Your task to perform on an android device: check google app version Image 0: 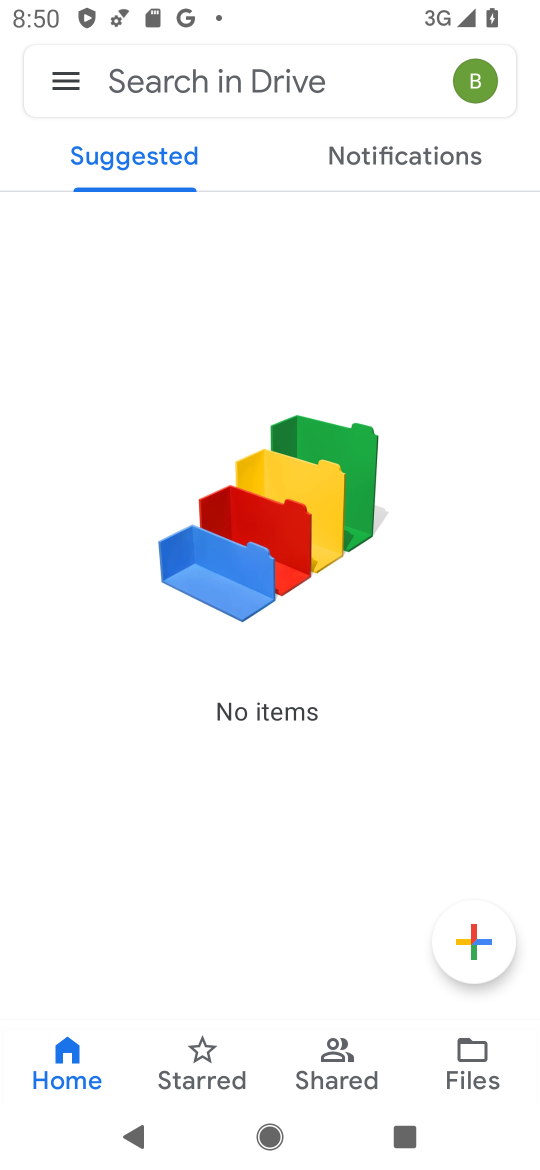
Step 0: press back button
Your task to perform on an android device: check google app version Image 1: 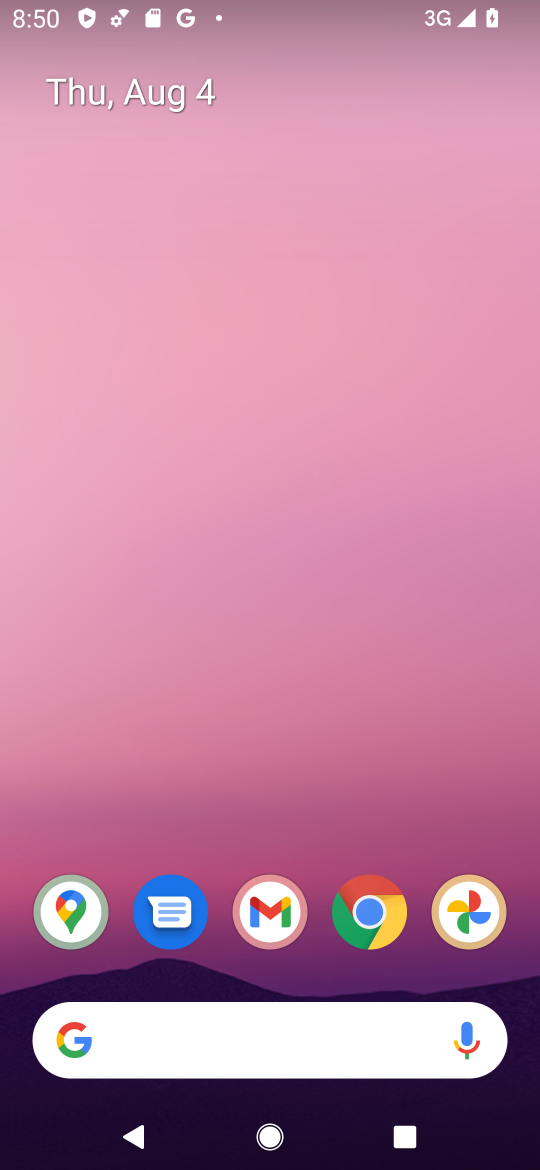
Step 1: click (368, 908)
Your task to perform on an android device: check google app version Image 2: 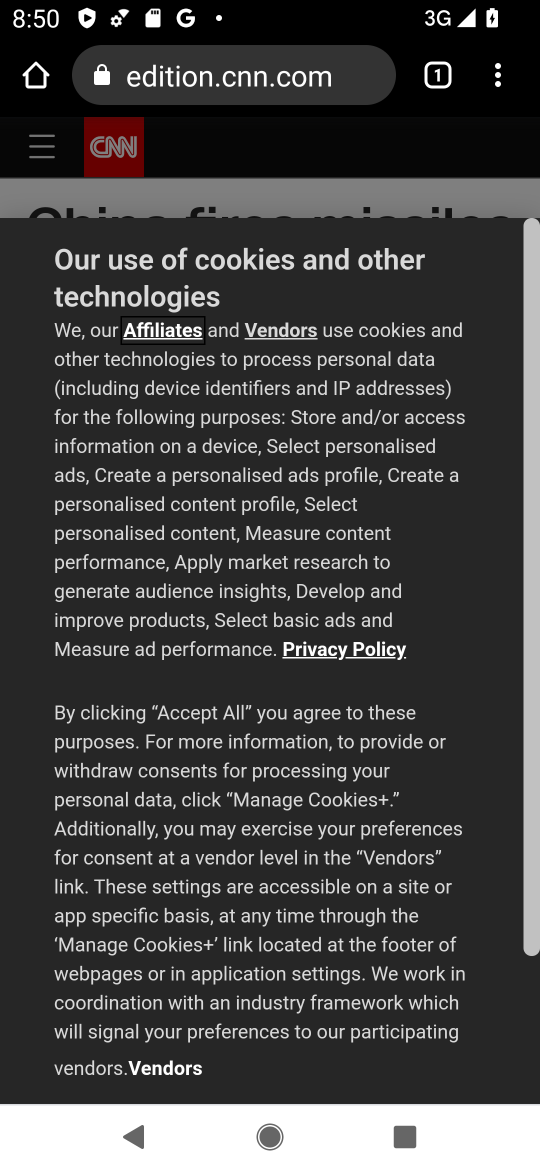
Step 2: click (496, 81)
Your task to perform on an android device: check google app version Image 3: 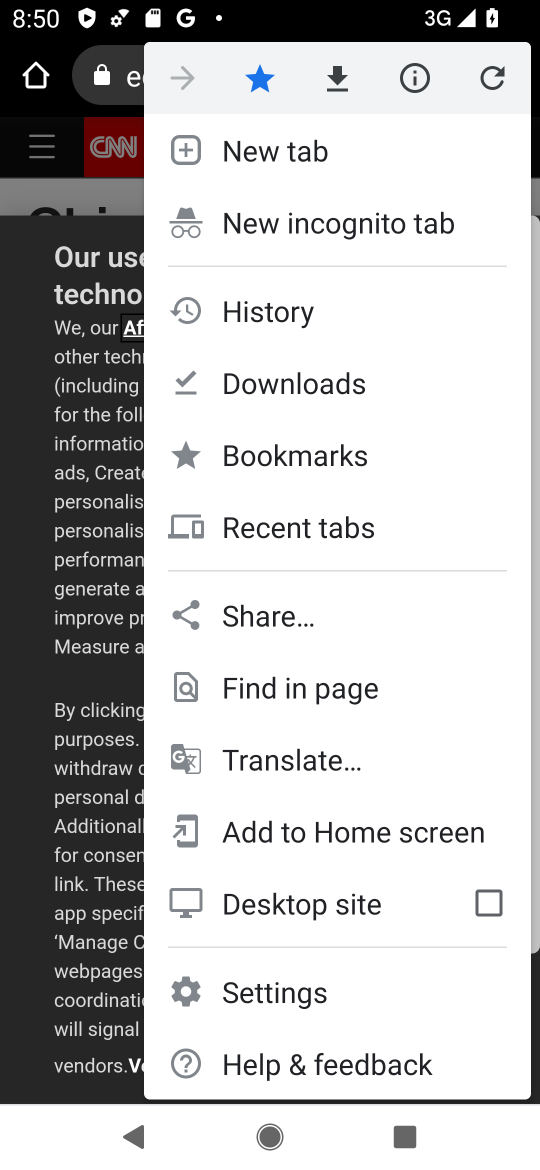
Step 3: click (361, 1066)
Your task to perform on an android device: check google app version Image 4: 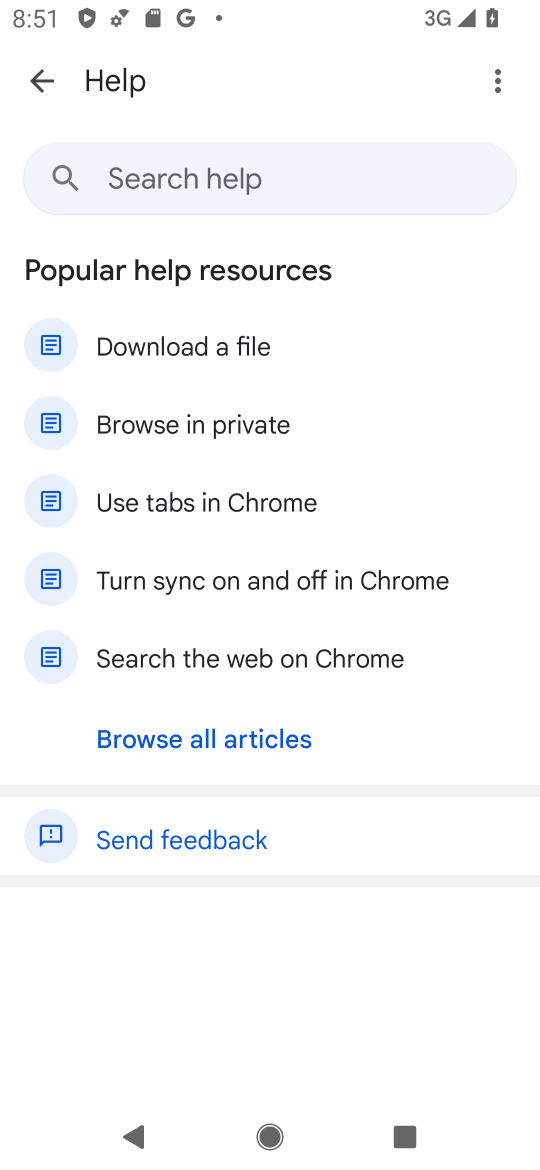
Step 4: click (501, 78)
Your task to perform on an android device: check google app version Image 5: 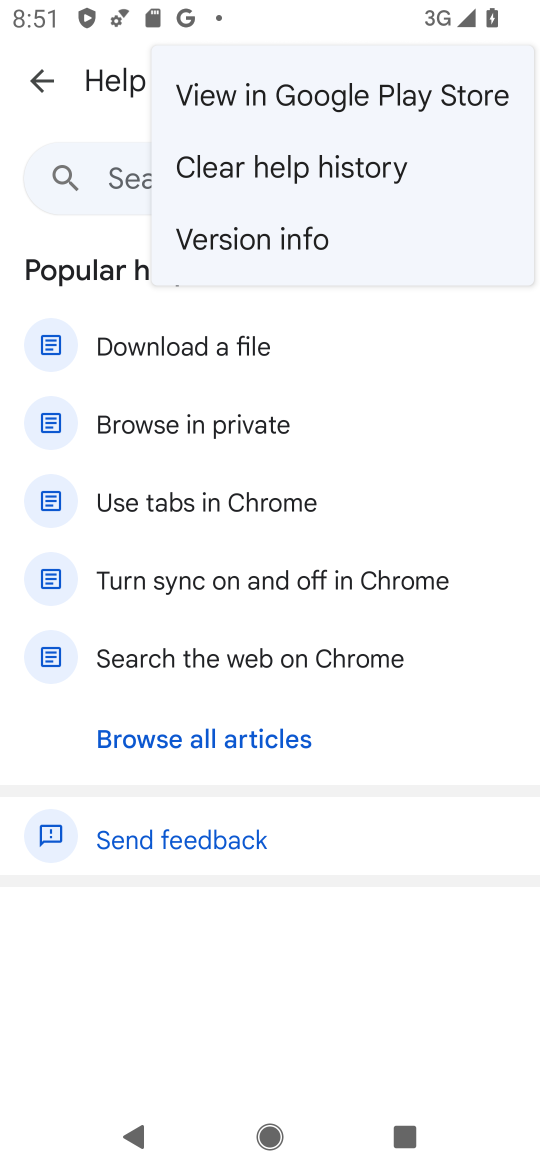
Step 5: click (370, 241)
Your task to perform on an android device: check google app version Image 6: 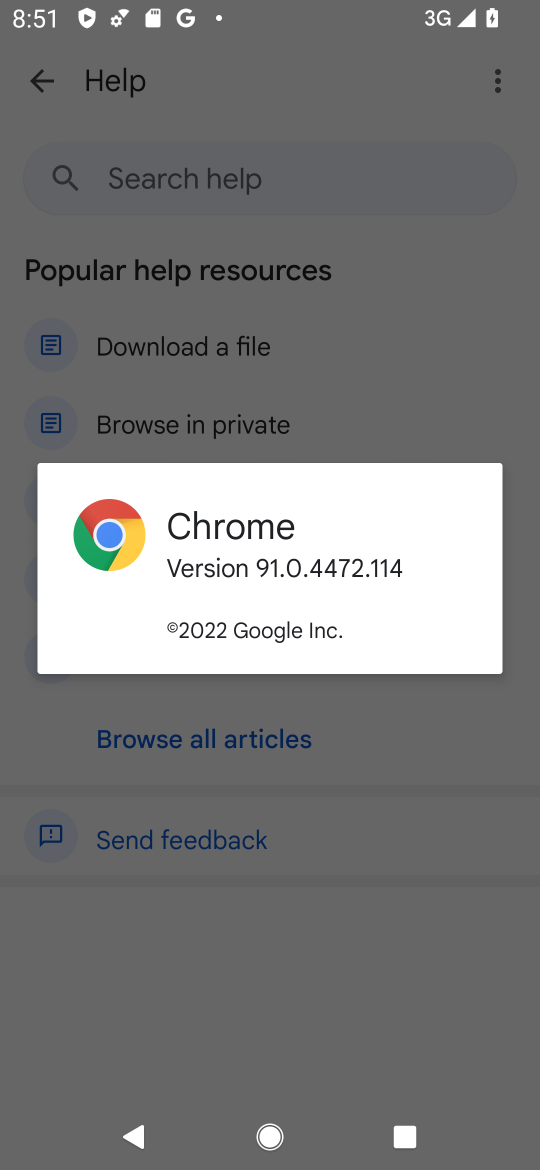
Step 6: task complete